Your task to perform on an android device: change the clock display to show seconds Image 0: 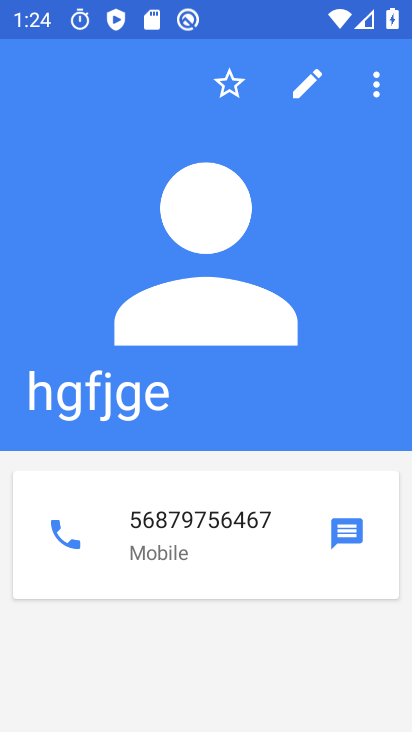
Step 0: press home button
Your task to perform on an android device: change the clock display to show seconds Image 1: 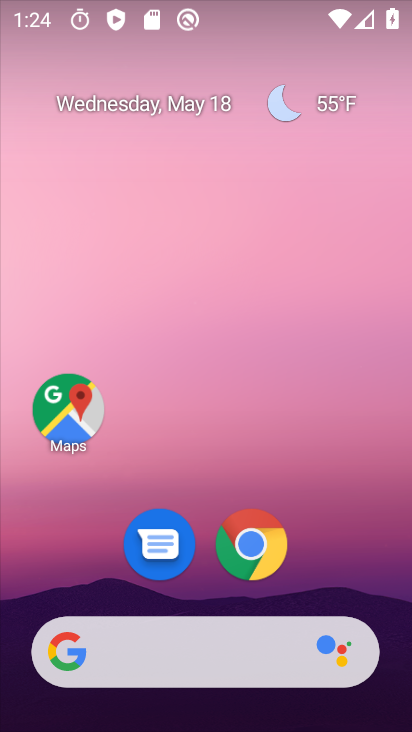
Step 1: drag from (335, 563) to (294, 293)
Your task to perform on an android device: change the clock display to show seconds Image 2: 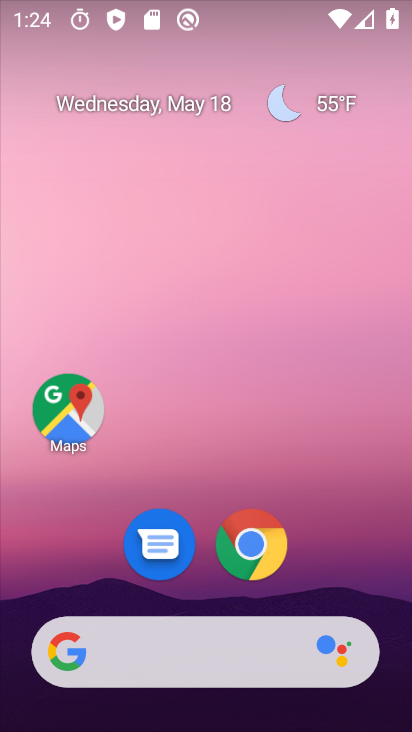
Step 2: drag from (314, 575) to (237, 167)
Your task to perform on an android device: change the clock display to show seconds Image 3: 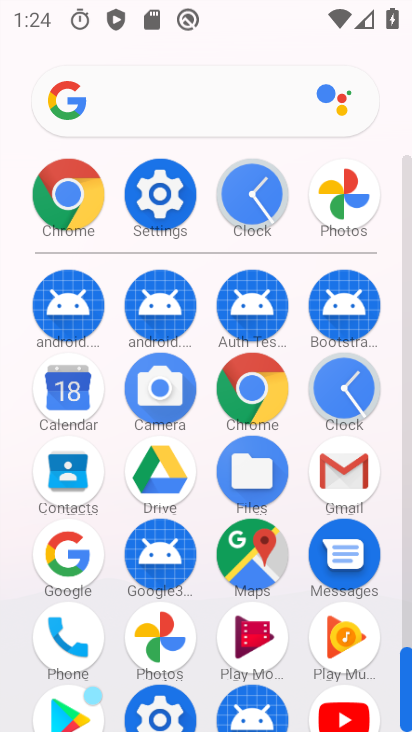
Step 3: click (243, 192)
Your task to perform on an android device: change the clock display to show seconds Image 4: 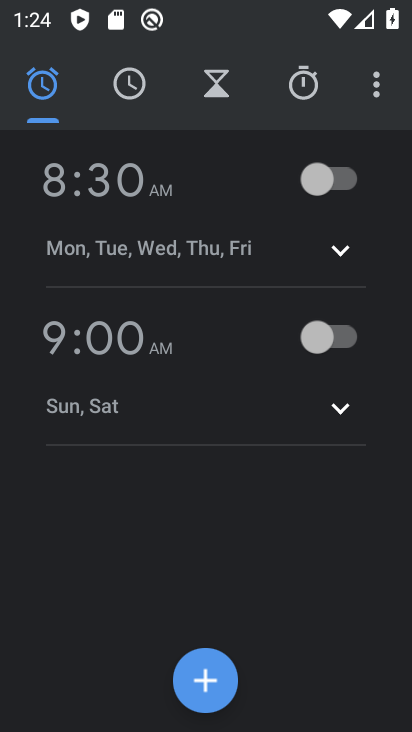
Step 4: click (376, 74)
Your task to perform on an android device: change the clock display to show seconds Image 5: 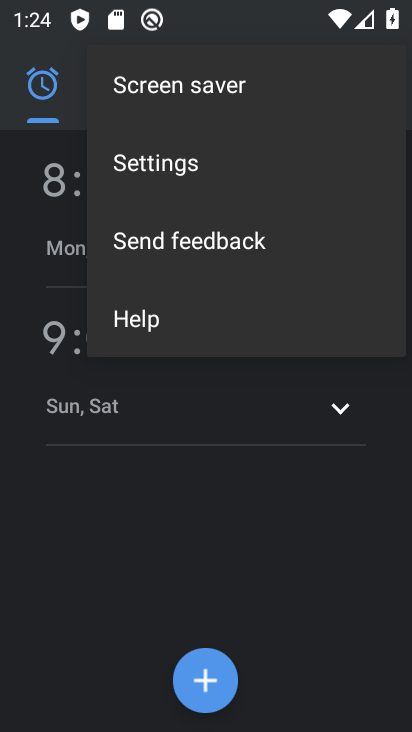
Step 5: click (184, 157)
Your task to perform on an android device: change the clock display to show seconds Image 6: 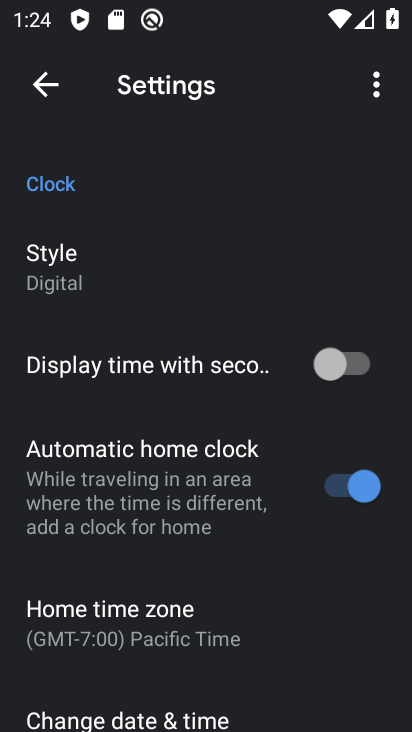
Step 6: click (357, 355)
Your task to perform on an android device: change the clock display to show seconds Image 7: 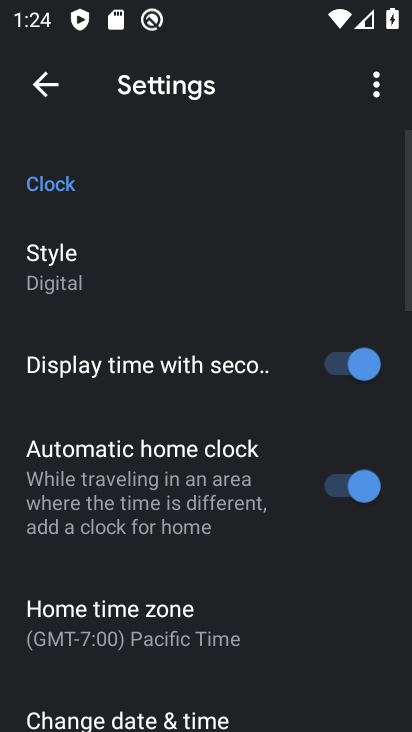
Step 7: task complete